Your task to perform on an android device: Open the web browser Image 0: 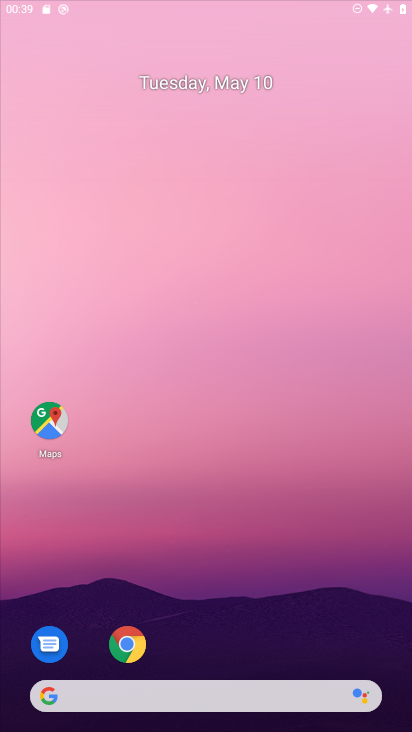
Step 0: click (265, 299)
Your task to perform on an android device: Open the web browser Image 1: 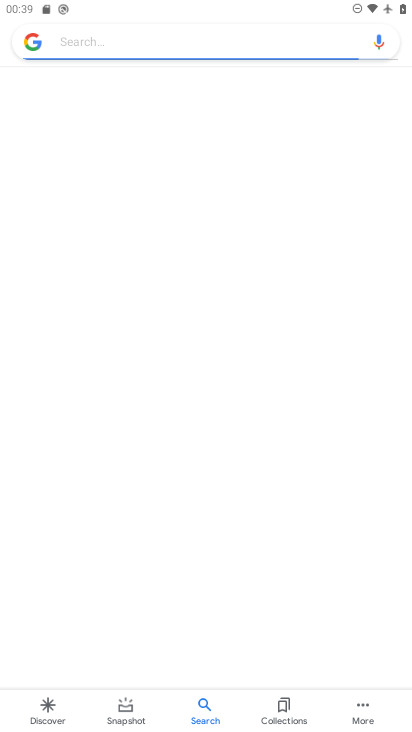
Step 1: press home button
Your task to perform on an android device: Open the web browser Image 2: 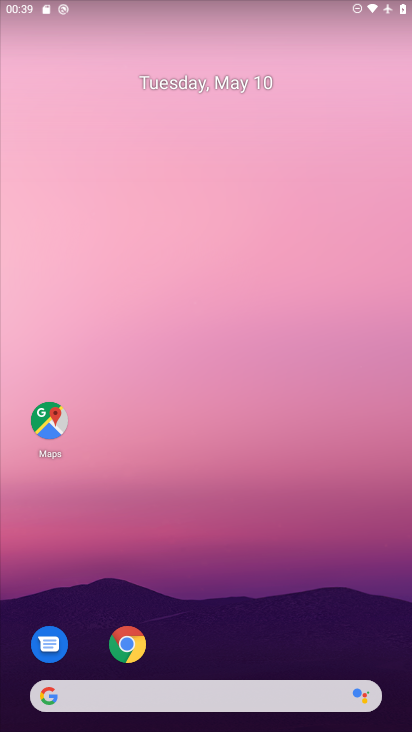
Step 2: click (135, 651)
Your task to perform on an android device: Open the web browser Image 3: 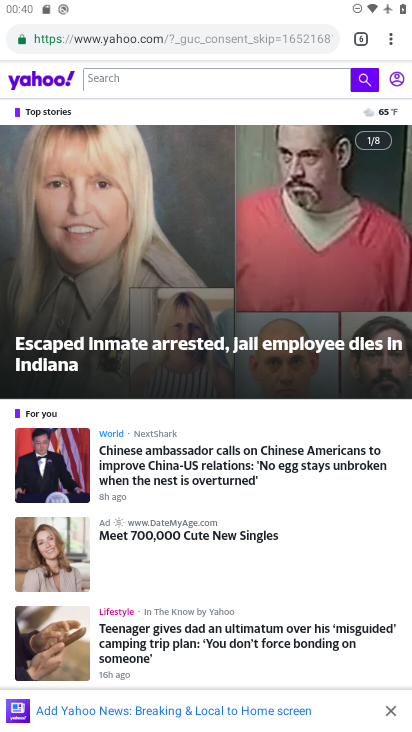
Step 3: task complete